Your task to perform on an android device: turn on translation in the chrome app Image 0: 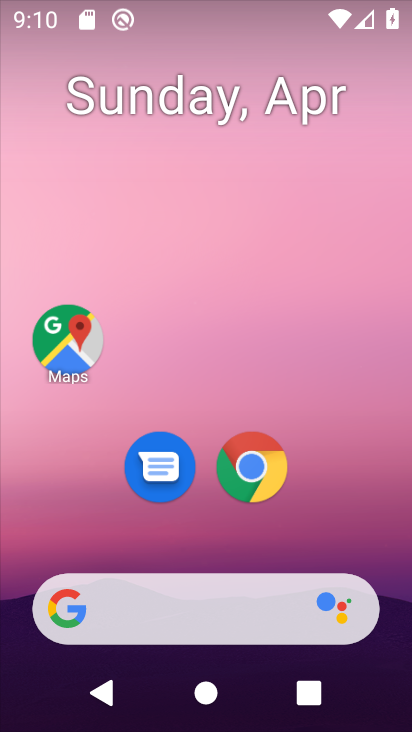
Step 0: click (268, 474)
Your task to perform on an android device: turn on translation in the chrome app Image 1: 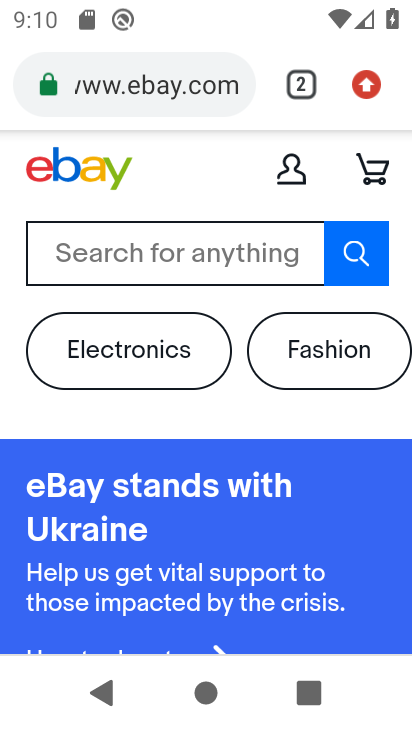
Step 1: click (364, 75)
Your task to perform on an android device: turn on translation in the chrome app Image 2: 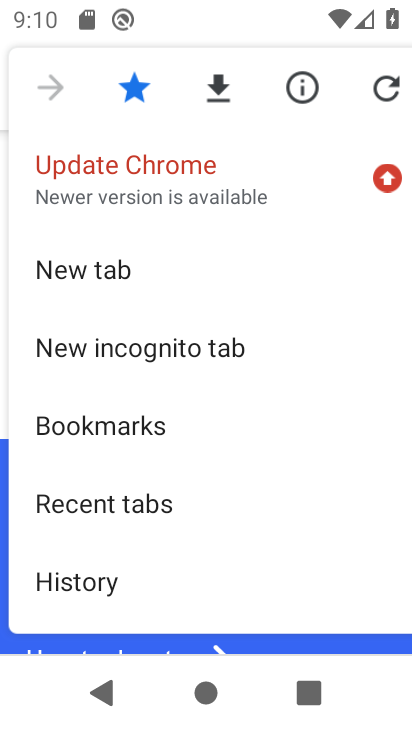
Step 2: drag from (241, 500) to (292, 218)
Your task to perform on an android device: turn on translation in the chrome app Image 3: 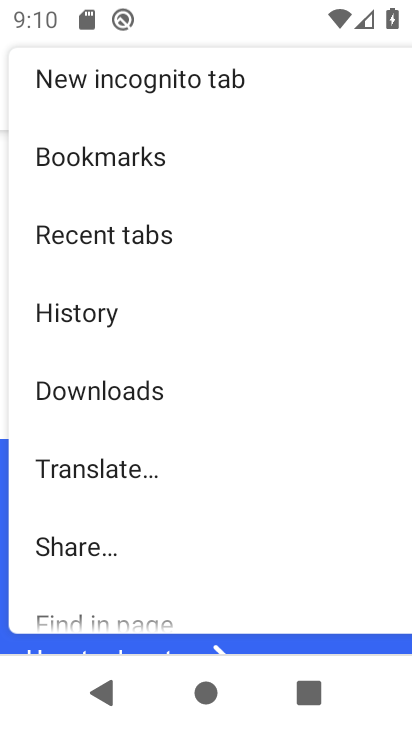
Step 3: drag from (263, 394) to (261, 249)
Your task to perform on an android device: turn on translation in the chrome app Image 4: 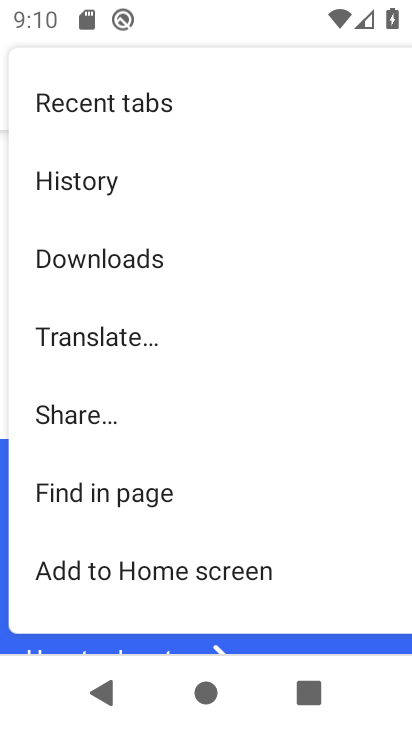
Step 4: drag from (201, 420) to (270, 206)
Your task to perform on an android device: turn on translation in the chrome app Image 5: 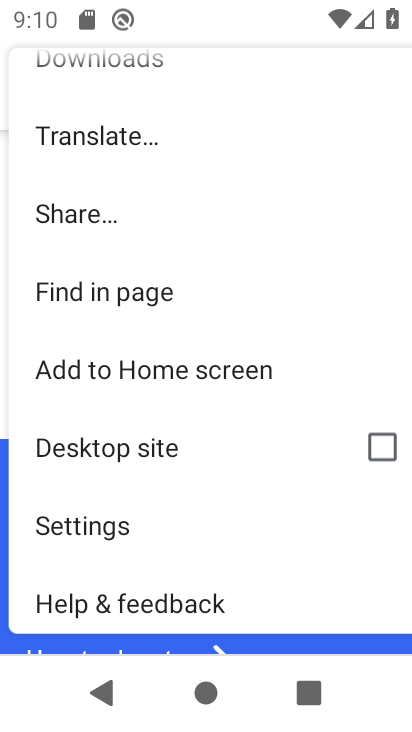
Step 5: click (203, 529)
Your task to perform on an android device: turn on translation in the chrome app Image 6: 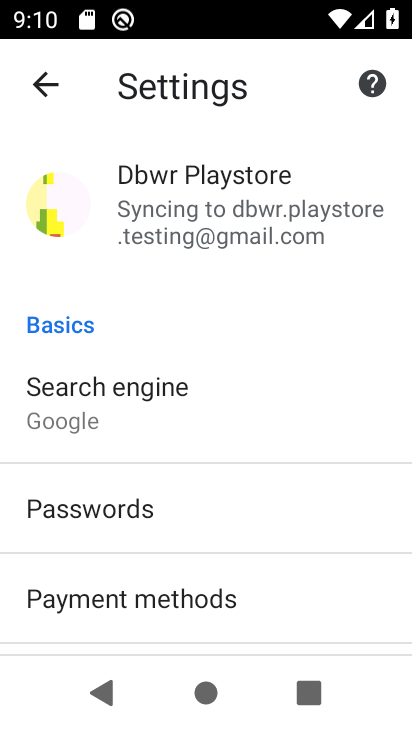
Step 6: drag from (188, 558) to (245, 344)
Your task to perform on an android device: turn on translation in the chrome app Image 7: 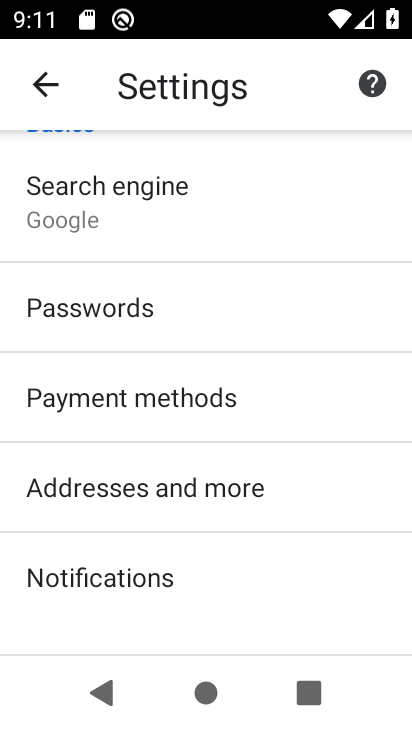
Step 7: drag from (205, 537) to (245, 417)
Your task to perform on an android device: turn on translation in the chrome app Image 8: 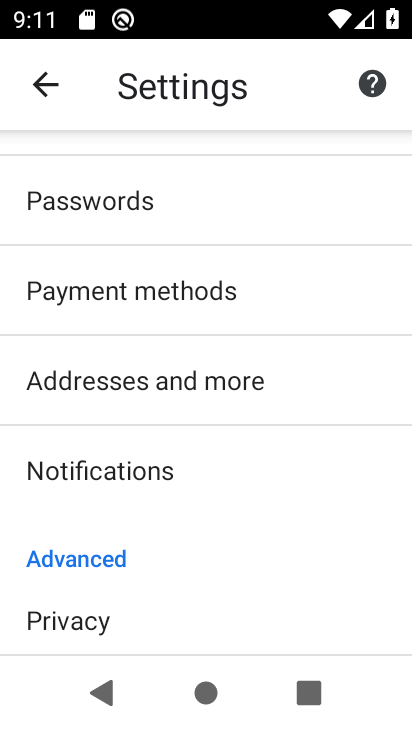
Step 8: drag from (235, 530) to (247, 398)
Your task to perform on an android device: turn on translation in the chrome app Image 9: 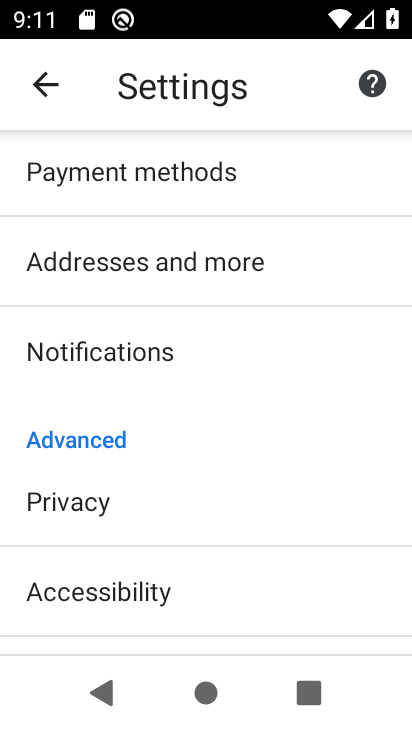
Step 9: drag from (227, 557) to (259, 343)
Your task to perform on an android device: turn on translation in the chrome app Image 10: 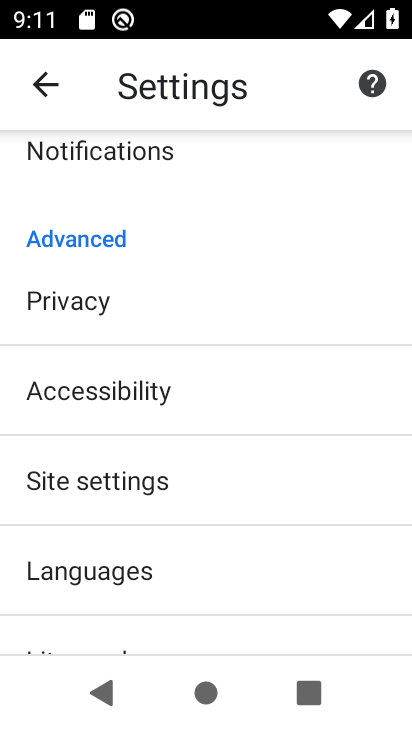
Step 10: click (196, 563)
Your task to perform on an android device: turn on translation in the chrome app Image 11: 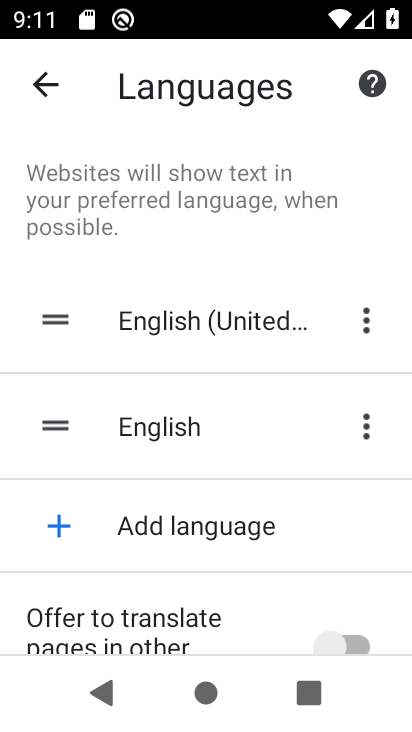
Step 11: drag from (195, 587) to (250, 321)
Your task to perform on an android device: turn on translation in the chrome app Image 12: 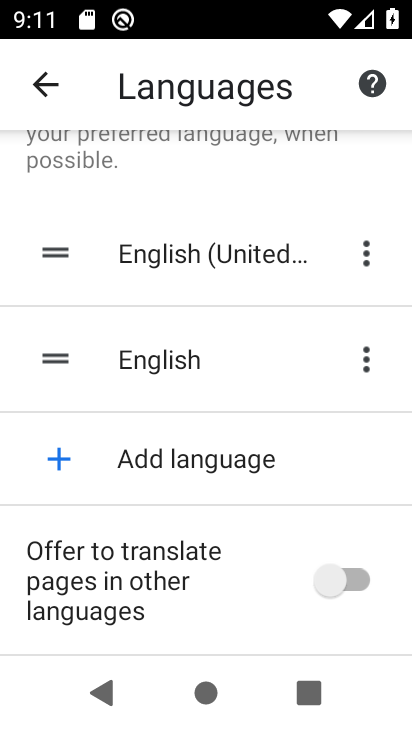
Step 12: click (332, 586)
Your task to perform on an android device: turn on translation in the chrome app Image 13: 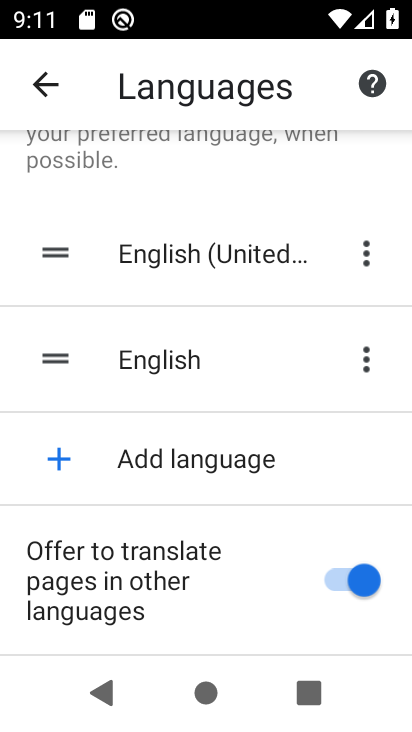
Step 13: task complete